Your task to perform on an android device: Go to Reddit.com Image 0: 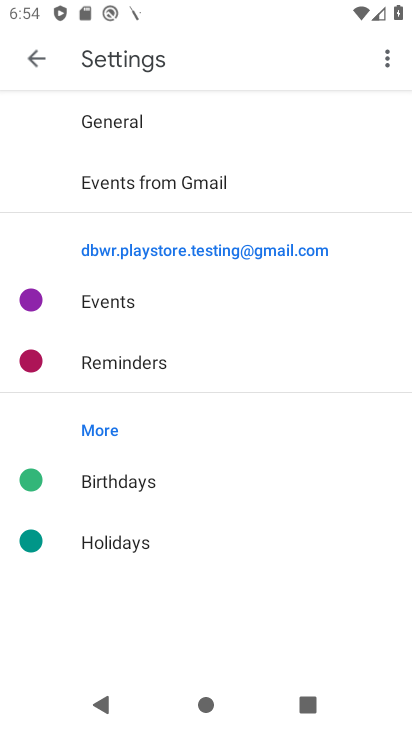
Step 0: press home button
Your task to perform on an android device: Go to Reddit.com Image 1: 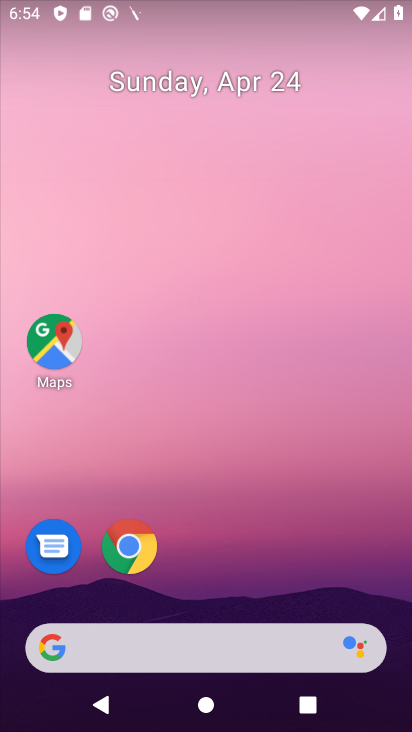
Step 1: click (130, 542)
Your task to perform on an android device: Go to Reddit.com Image 2: 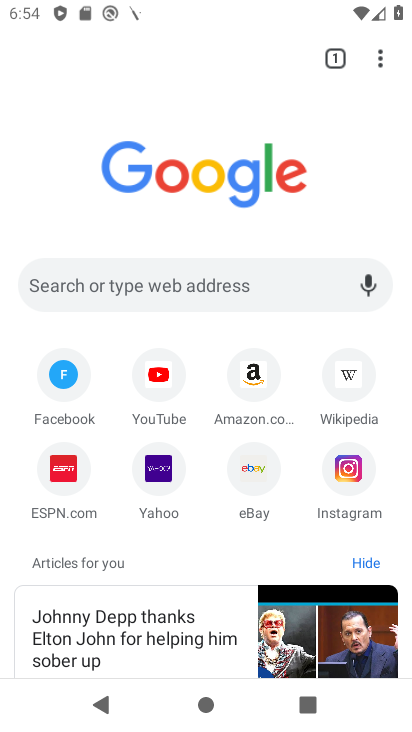
Step 2: click (149, 276)
Your task to perform on an android device: Go to Reddit.com Image 3: 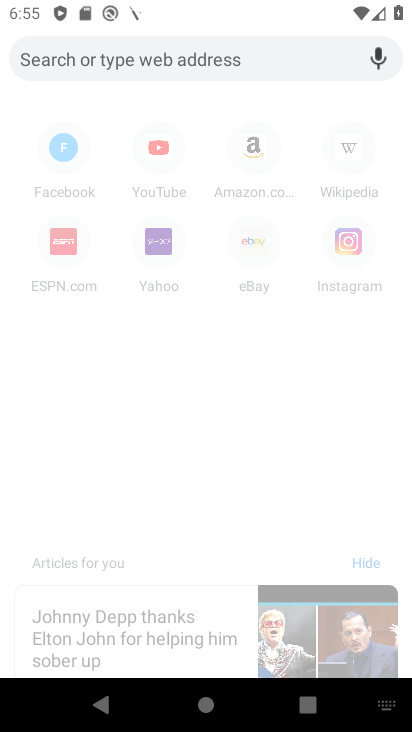
Step 3: type "Reddit.com"
Your task to perform on an android device: Go to Reddit.com Image 4: 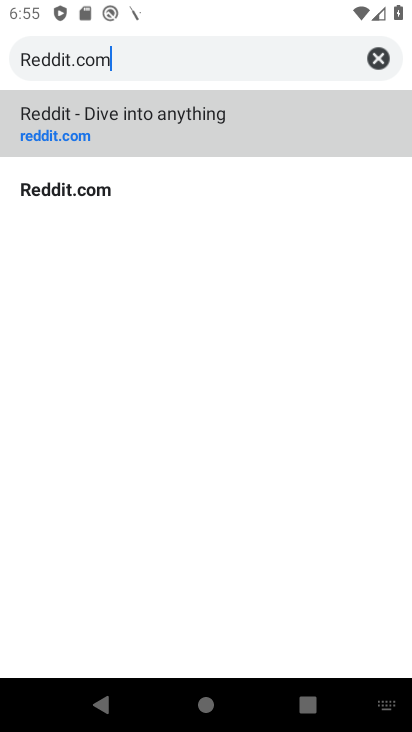
Step 4: type ""
Your task to perform on an android device: Go to Reddit.com Image 5: 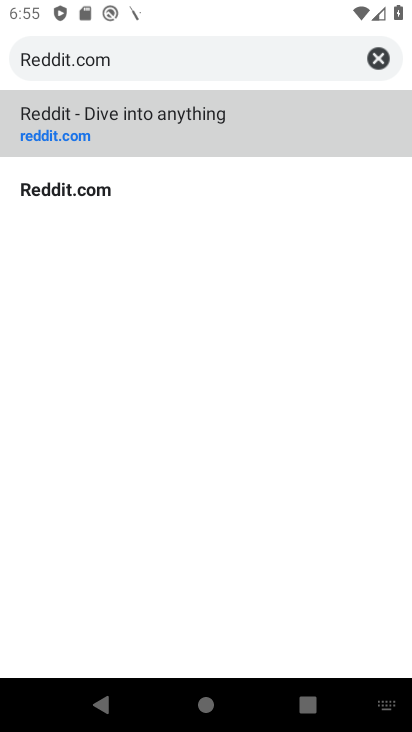
Step 5: click (69, 191)
Your task to perform on an android device: Go to Reddit.com Image 6: 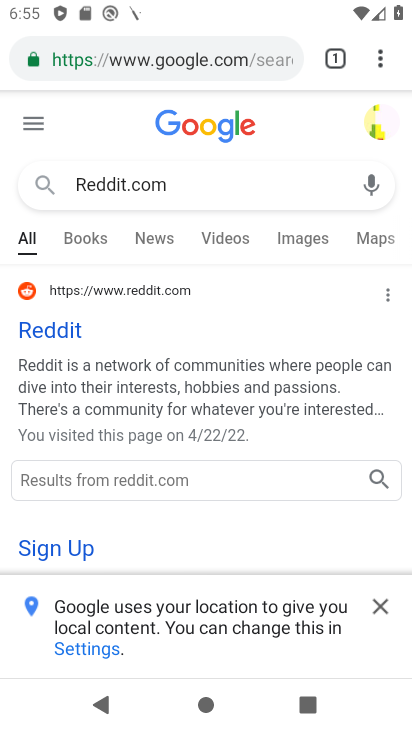
Step 6: task complete